Your task to perform on an android device: Open internet settings Image 0: 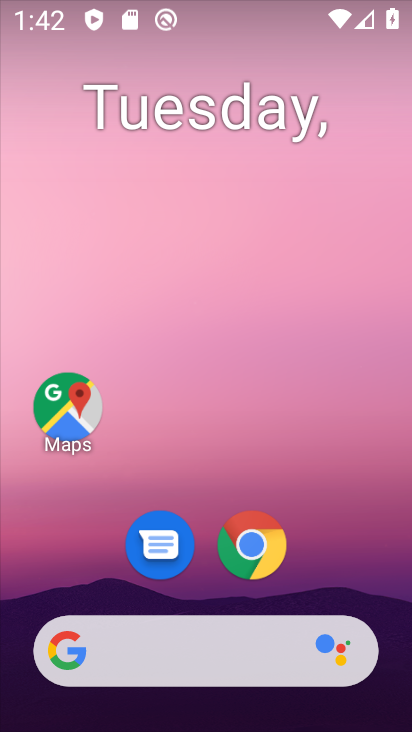
Step 0: drag from (334, 564) to (285, 6)
Your task to perform on an android device: Open internet settings Image 1: 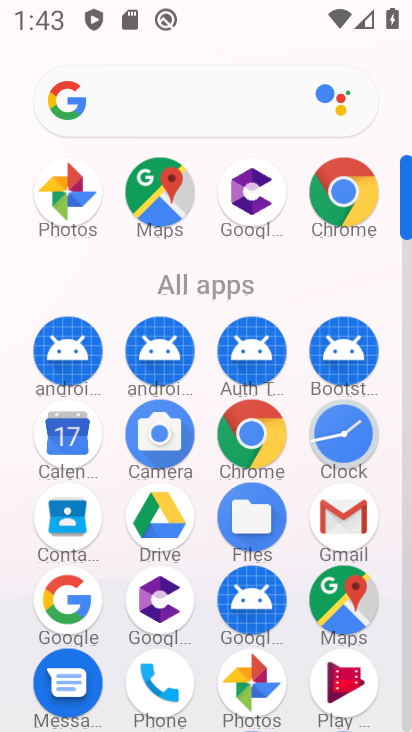
Step 1: drag from (24, 523) to (20, 182)
Your task to perform on an android device: Open internet settings Image 2: 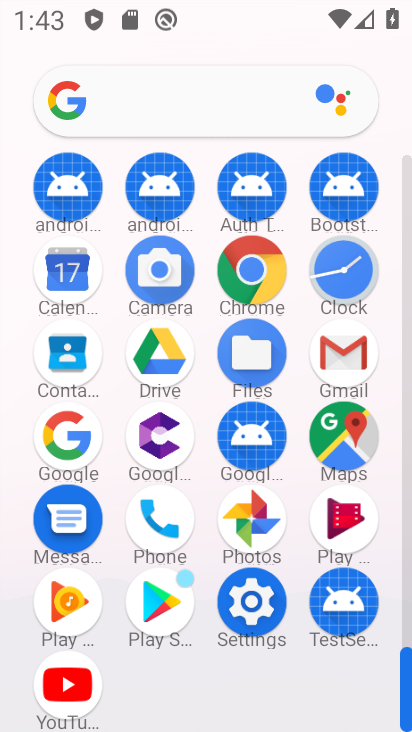
Step 2: click (253, 603)
Your task to perform on an android device: Open internet settings Image 3: 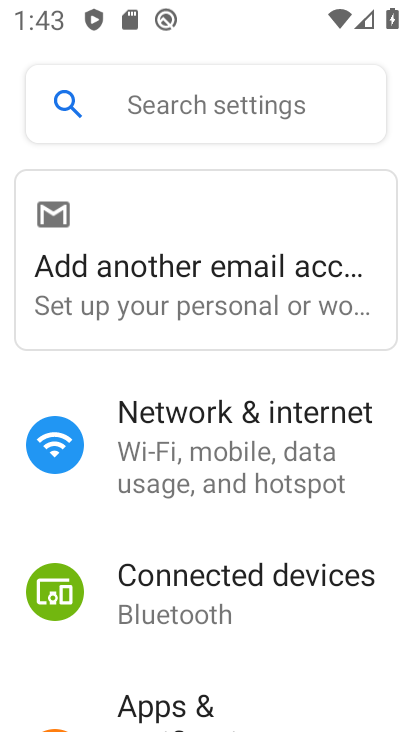
Step 3: click (229, 457)
Your task to perform on an android device: Open internet settings Image 4: 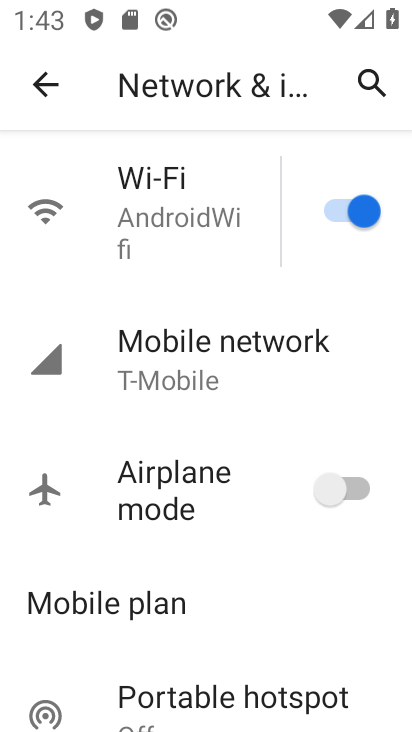
Step 4: task complete